Your task to perform on an android device: Go to Android settings Image 0: 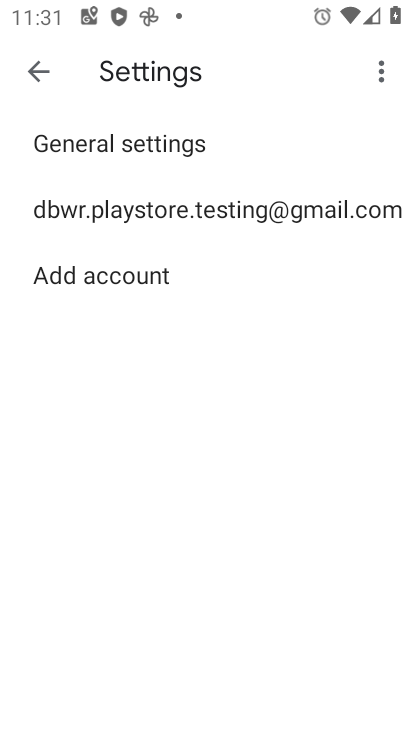
Step 0: press home button
Your task to perform on an android device: Go to Android settings Image 1: 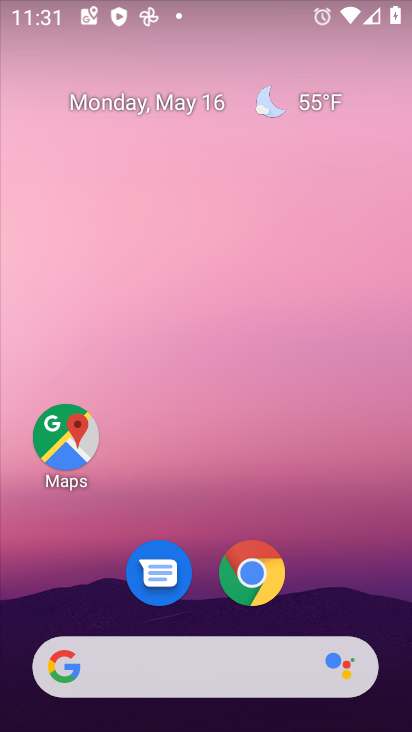
Step 1: drag from (344, 565) to (277, 116)
Your task to perform on an android device: Go to Android settings Image 2: 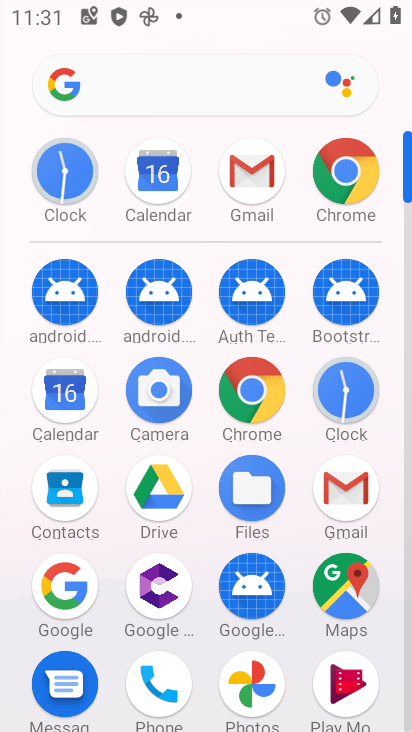
Step 2: drag from (297, 247) to (244, 1)
Your task to perform on an android device: Go to Android settings Image 3: 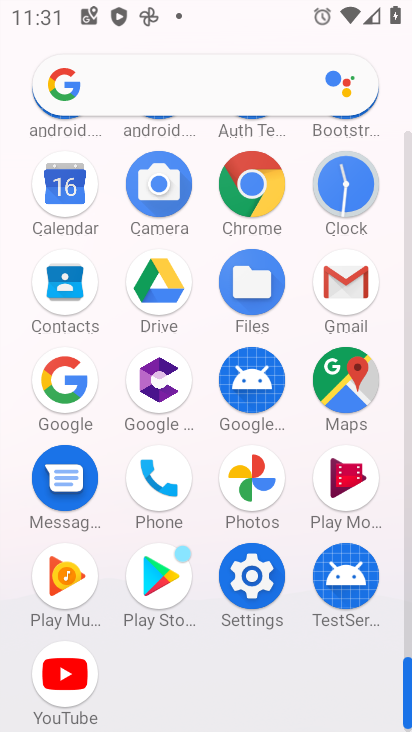
Step 3: click (261, 593)
Your task to perform on an android device: Go to Android settings Image 4: 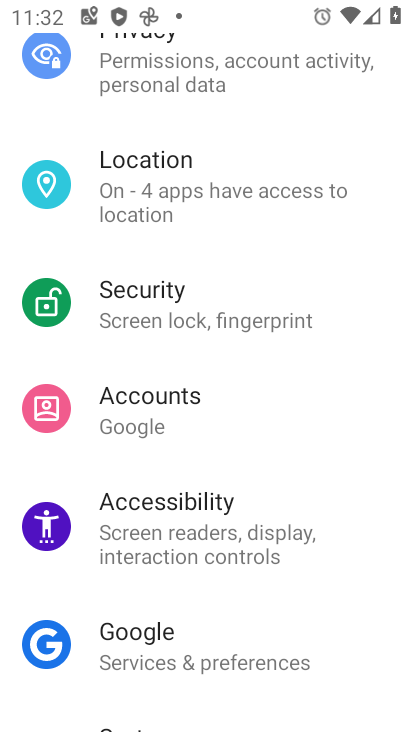
Step 4: task complete